Your task to perform on an android device: Empty the shopping cart on walmart.com. Image 0: 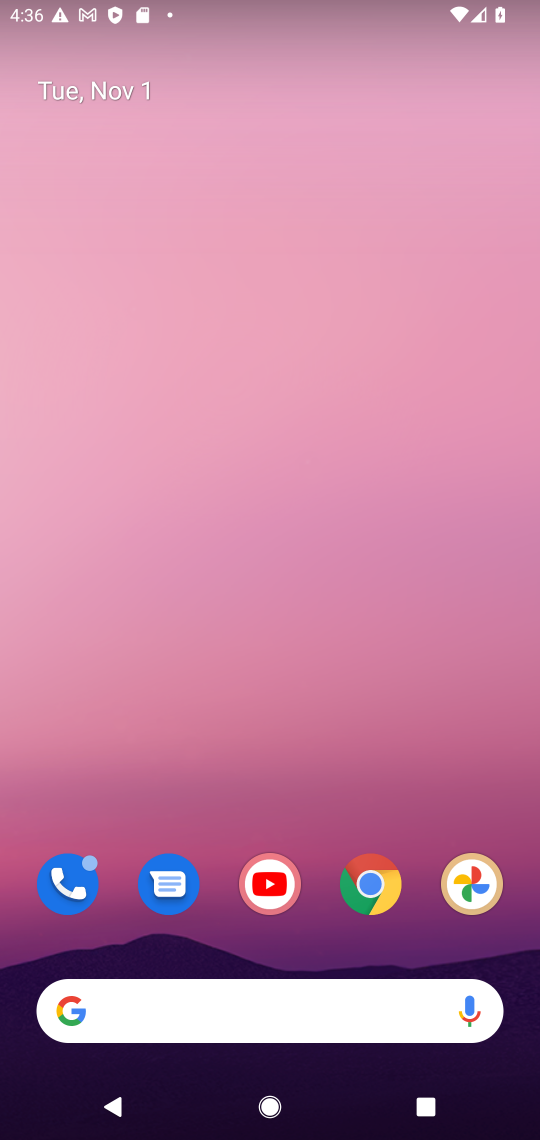
Step 0: click (359, 893)
Your task to perform on an android device: Empty the shopping cart on walmart.com. Image 1: 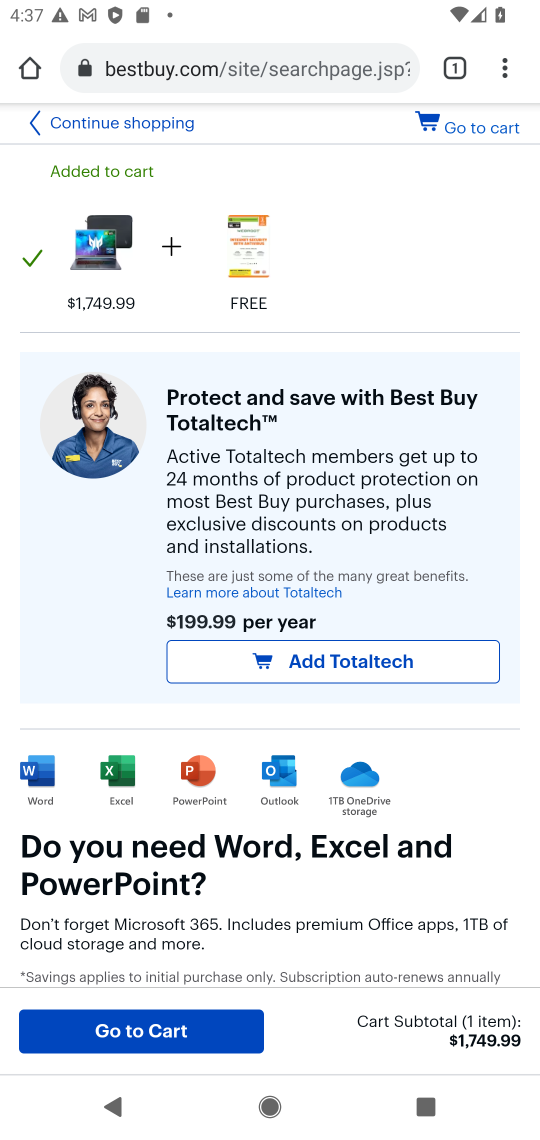
Step 1: click (245, 57)
Your task to perform on an android device: Empty the shopping cart on walmart.com. Image 2: 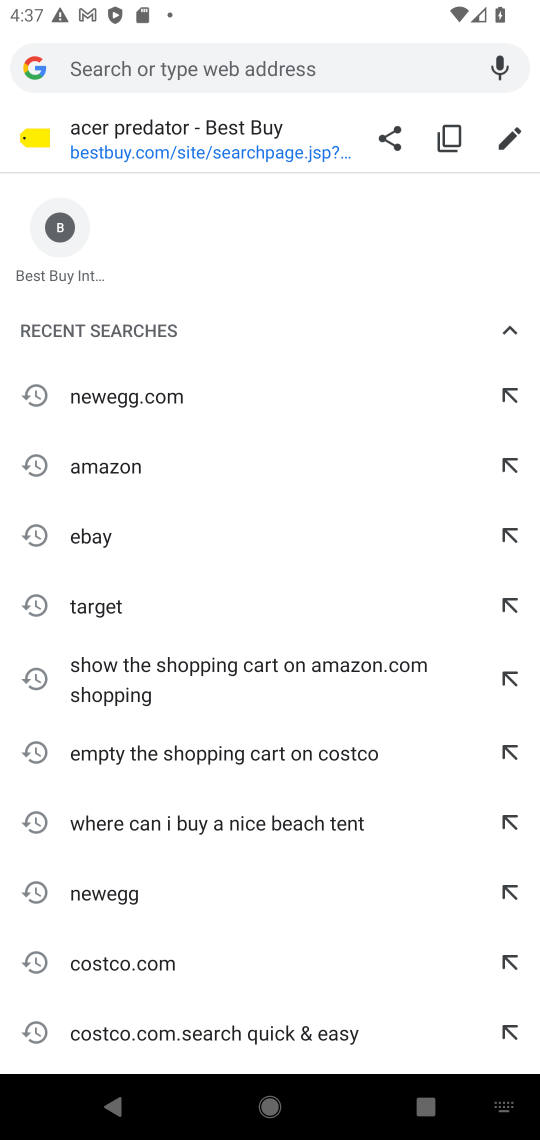
Step 2: type "Walmart.com"
Your task to perform on an android device: Empty the shopping cart on walmart.com. Image 3: 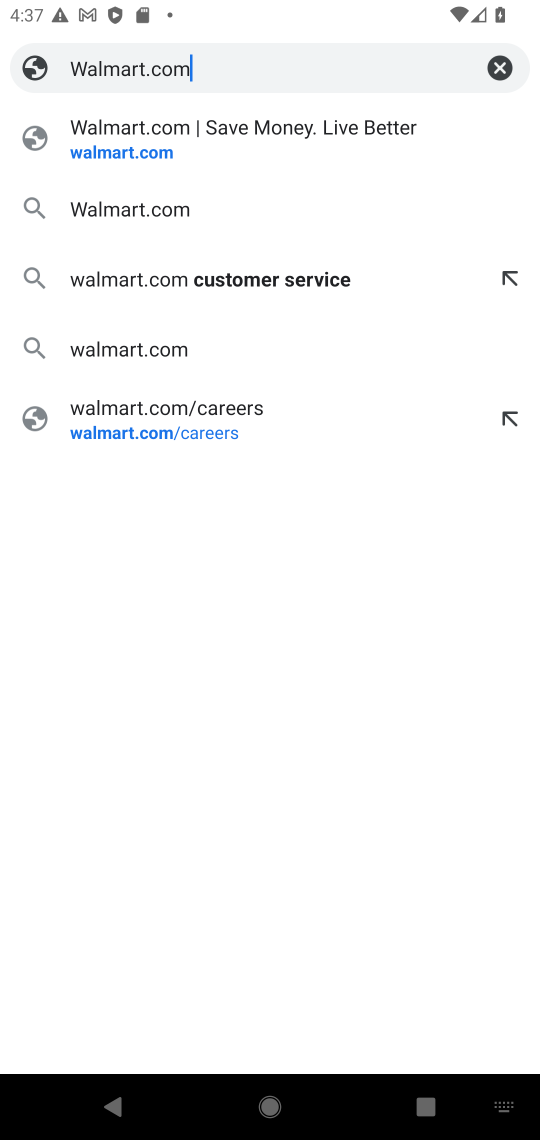
Step 3: click (201, 145)
Your task to perform on an android device: Empty the shopping cart on walmart.com. Image 4: 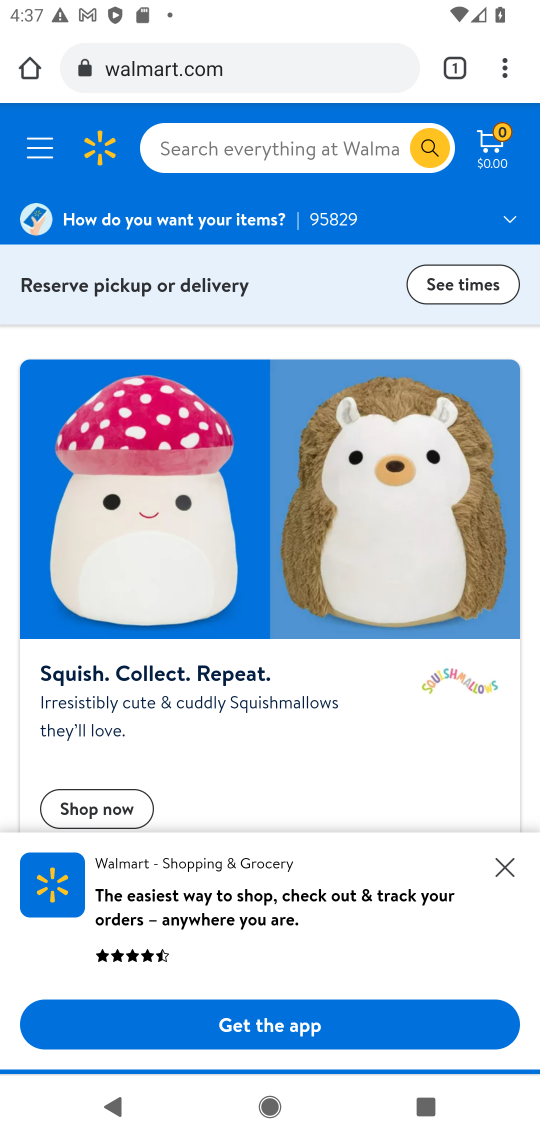
Step 4: click (494, 134)
Your task to perform on an android device: Empty the shopping cart on walmart.com. Image 5: 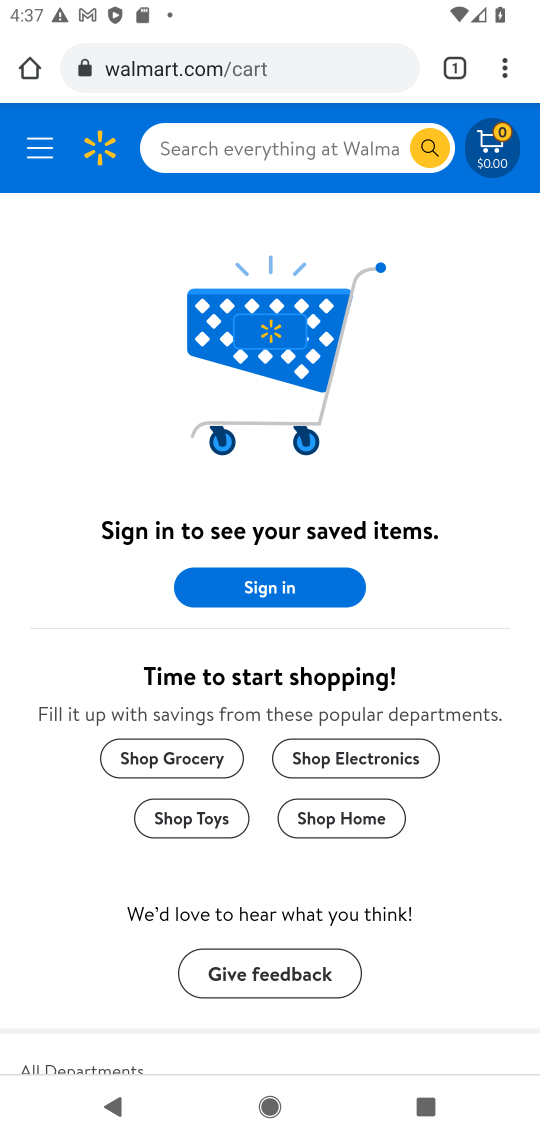
Step 5: task complete